Your task to perform on an android device: Google the capital of Venezuela Image 0: 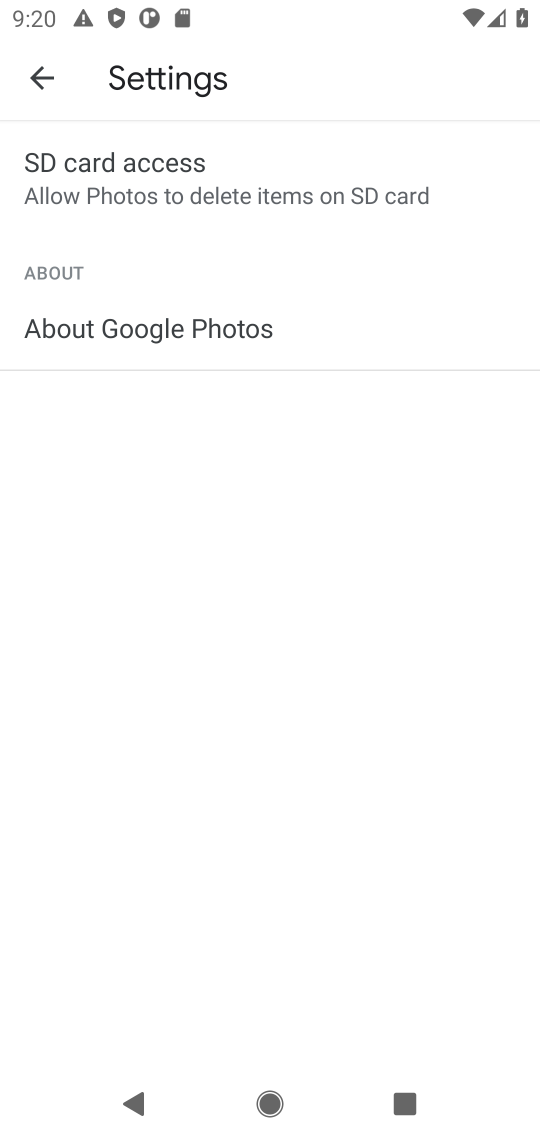
Step 0: task complete